Your task to perform on an android device: What is the recent news? Image 0: 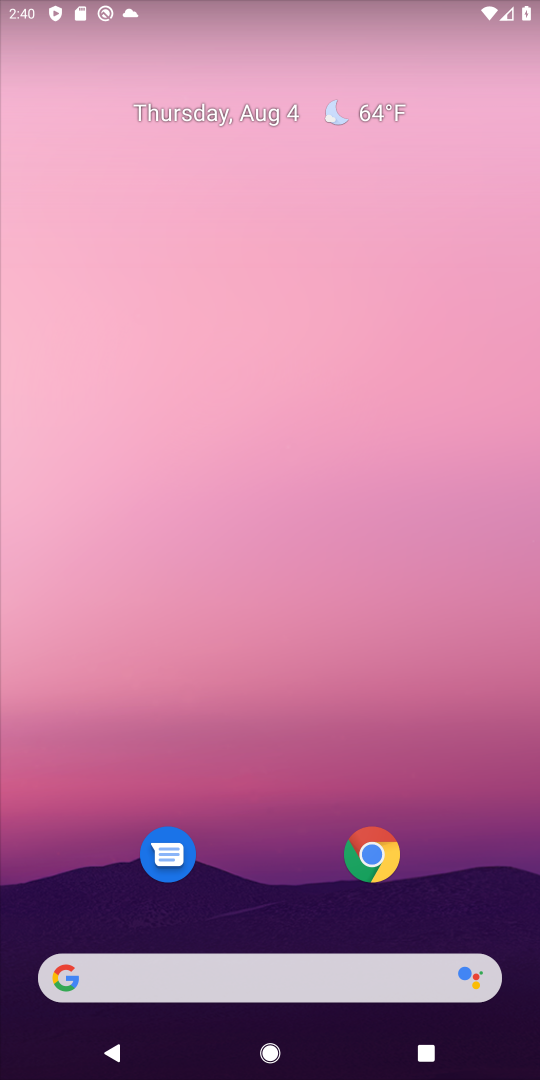
Step 0: click (280, 973)
Your task to perform on an android device: What is the recent news? Image 1: 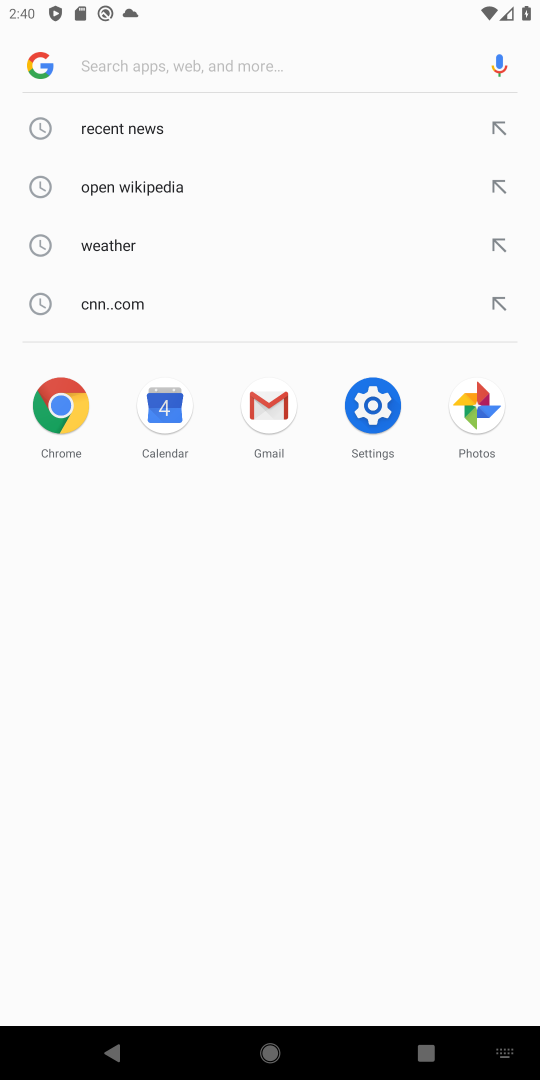
Step 1: type "What is the recent news?"
Your task to perform on an android device: What is the recent news? Image 2: 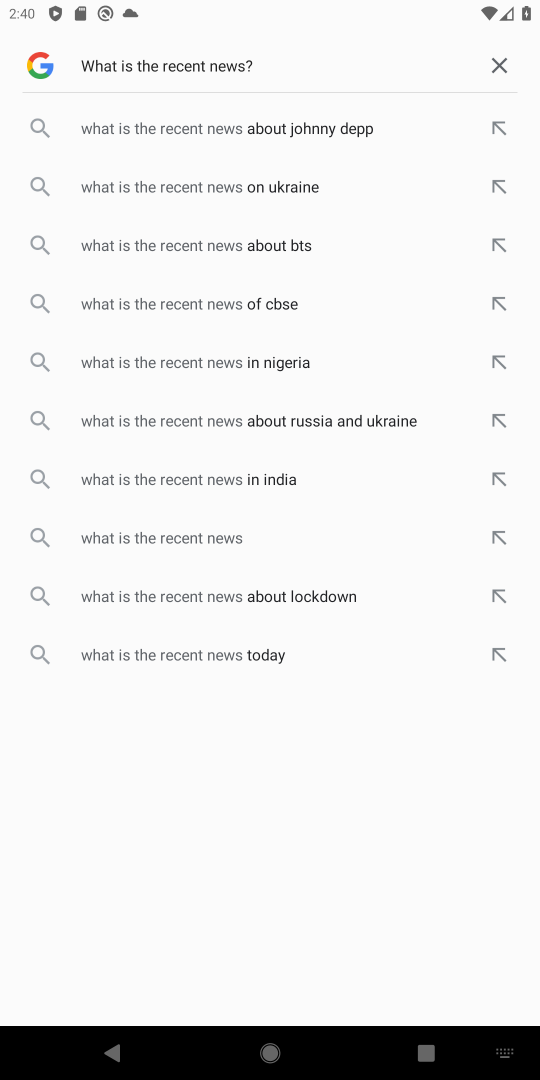
Step 2: press enter
Your task to perform on an android device: What is the recent news? Image 3: 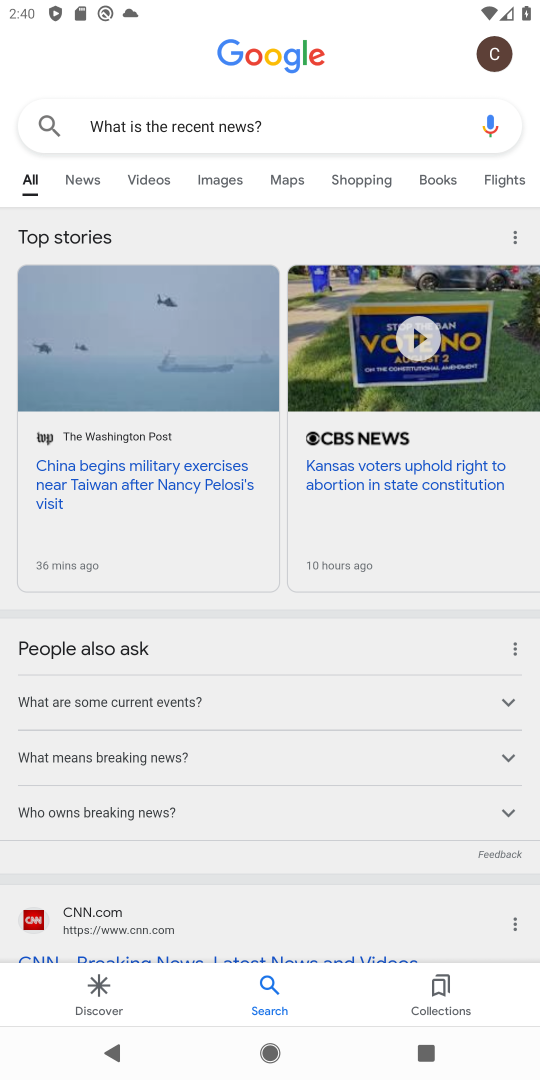
Step 3: task complete